Your task to perform on an android device: Open Chrome and go to settings Image 0: 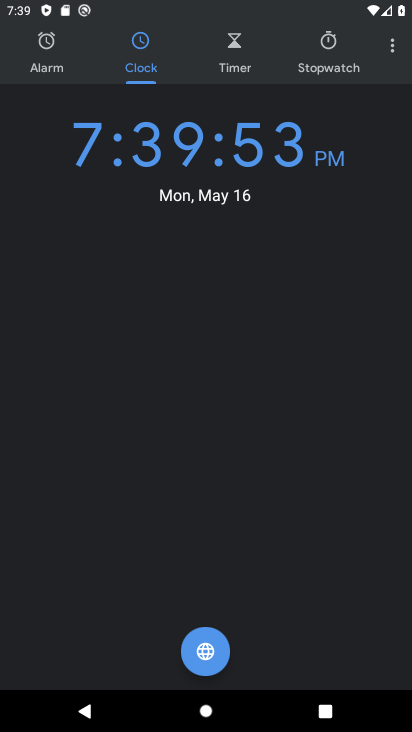
Step 0: press back button
Your task to perform on an android device: Open Chrome and go to settings Image 1: 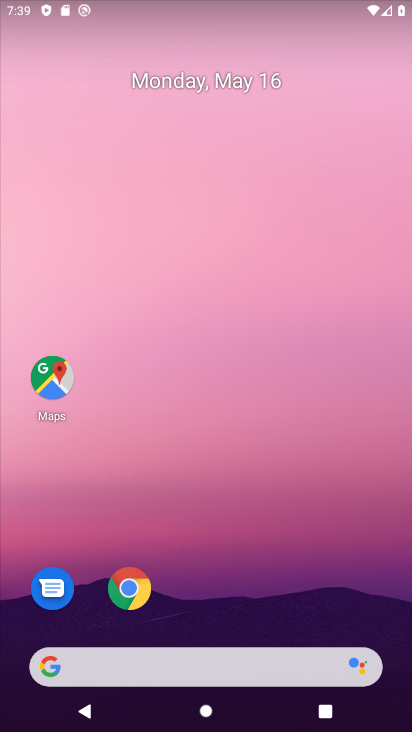
Step 1: drag from (233, 586) to (197, 25)
Your task to perform on an android device: Open Chrome and go to settings Image 2: 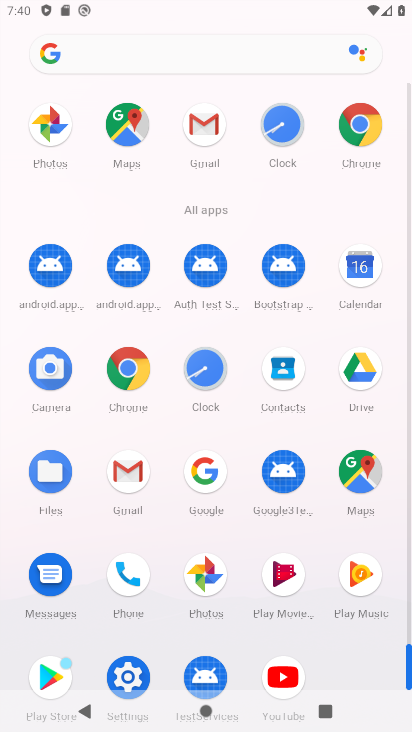
Step 2: click (131, 364)
Your task to perform on an android device: Open Chrome and go to settings Image 3: 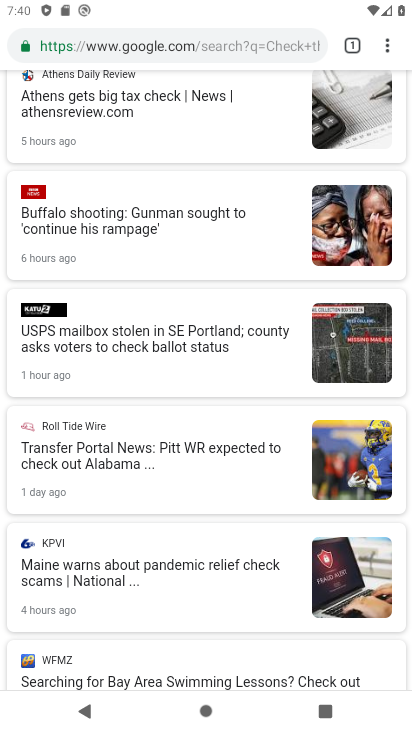
Step 3: task complete